Your task to perform on an android device: delete browsing data in the chrome app Image 0: 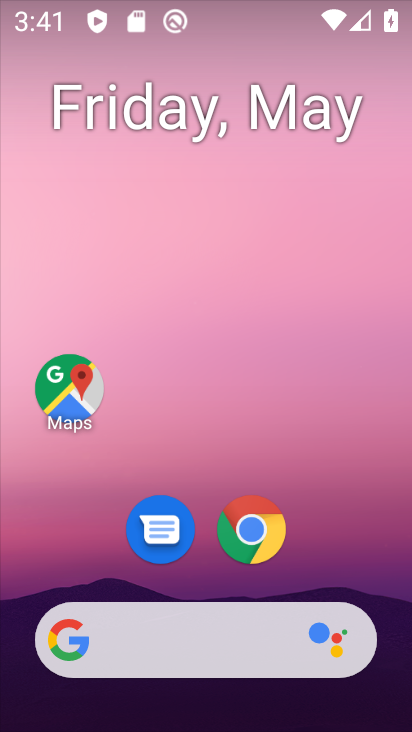
Step 0: click (256, 550)
Your task to perform on an android device: delete browsing data in the chrome app Image 1: 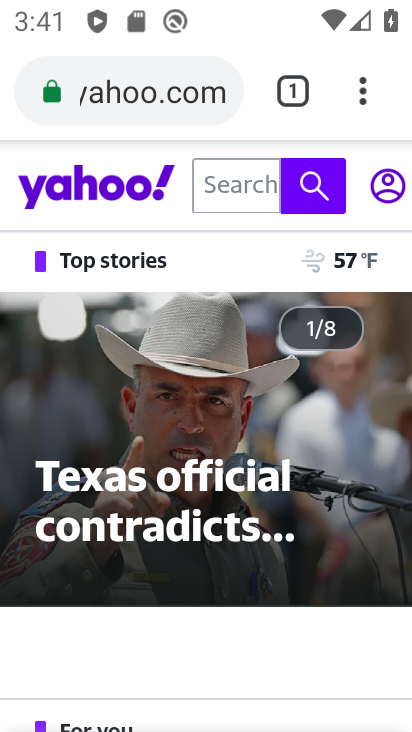
Step 1: click (367, 98)
Your task to perform on an android device: delete browsing data in the chrome app Image 2: 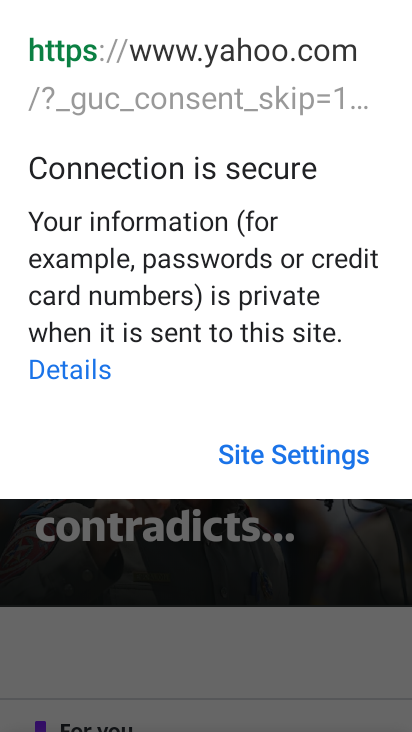
Step 2: click (169, 584)
Your task to perform on an android device: delete browsing data in the chrome app Image 3: 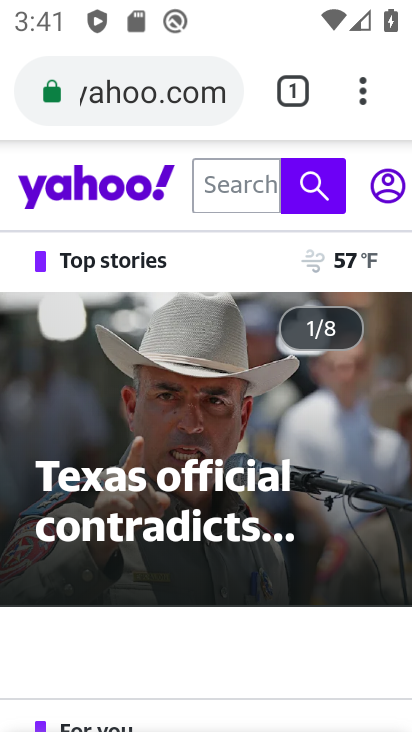
Step 3: click (355, 99)
Your task to perform on an android device: delete browsing data in the chrome app Image 4: 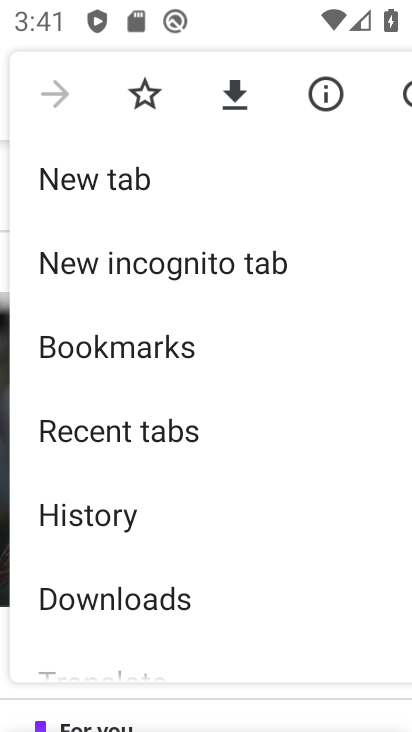
Step 4: click (110, 523)
Your task to perform on an android device: delete browsing data in the chrome app Image 5: 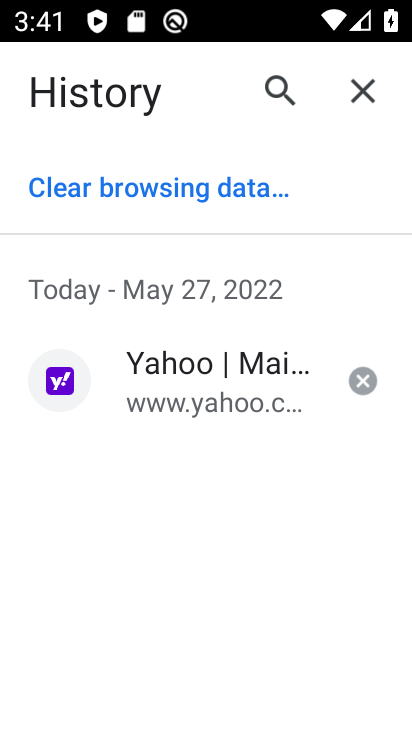
Step 5: click (258, 186)
Your task to perform on an android device: delete browsing data in the chrome app Image 6: 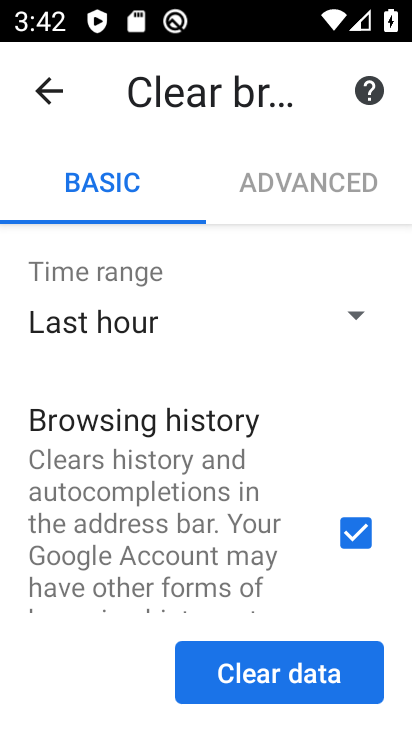
Step 6: click (270, 682)
Your task to perform on an android device: delete browsing data in the chrome app Image 7: 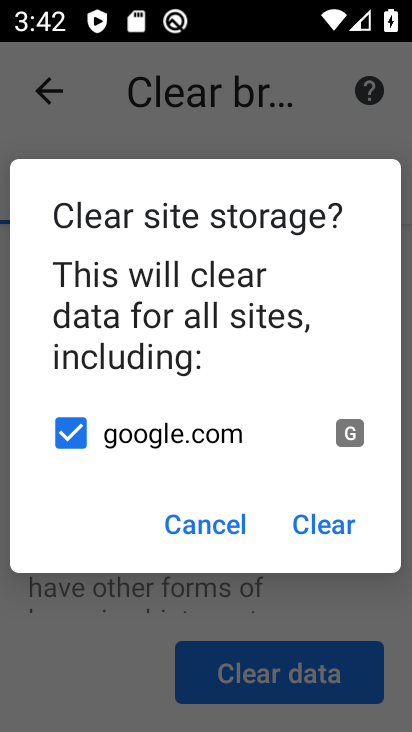
Step 7: click (311, 525)
Your task to perform on an android device: delete browsing data in the chrome app Image 8: 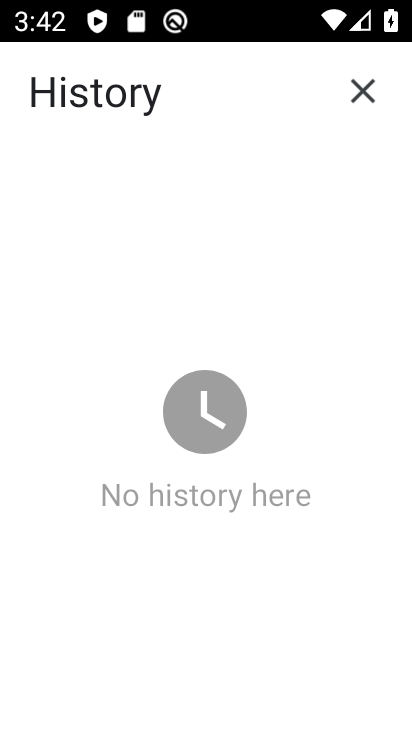
Step 8: task complete